Your task to perform on an android device: visit the assistant section in the google photos Image 0: 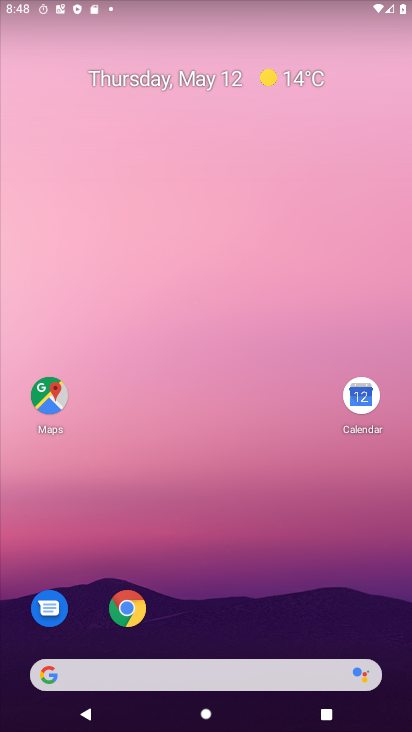
Step 0: drag from (253, 556) to (50, 1)
Your task to perform on an android device: visit the assistant section in the google photos Image 1: 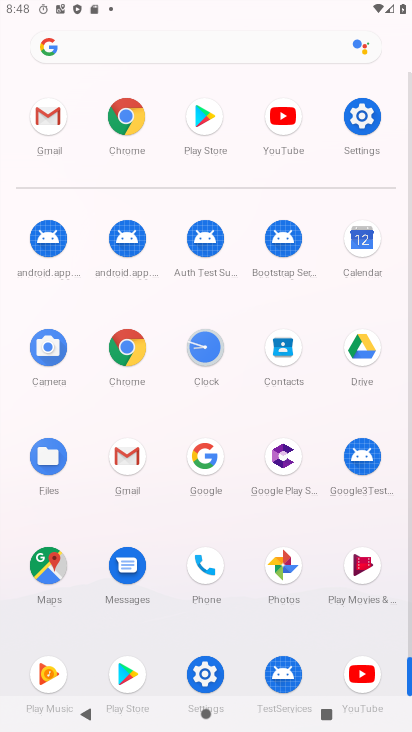
Step 1: click (291, 560)
Your task to perform on an android device: visit the assistant section in the google photos Image 2: 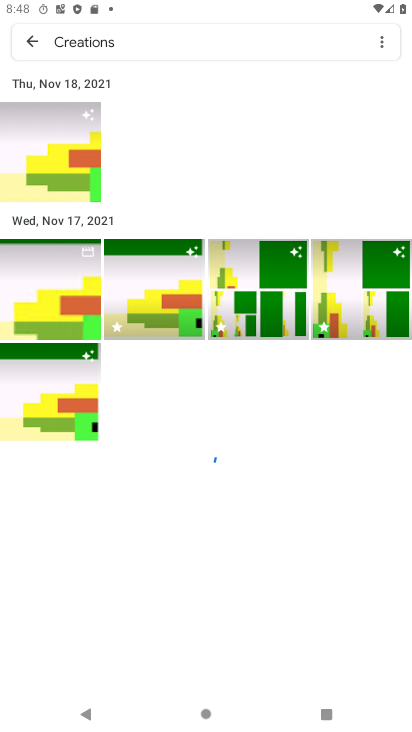
Step 2: click (375, 45)
Your task to perform on an android device: visit the assistant section in the google photos Image 3: 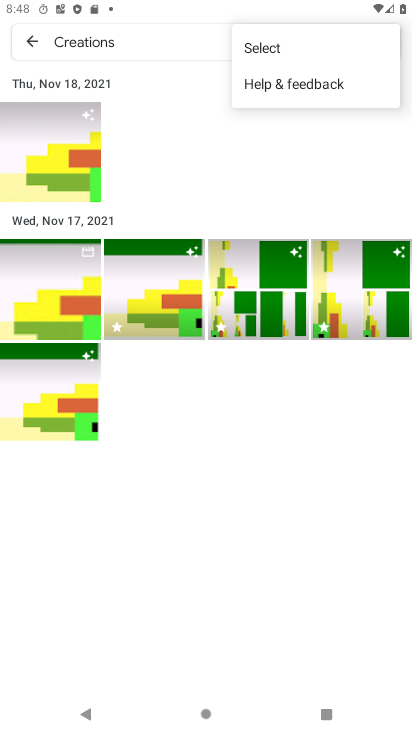
Step 3: click (31, 30)
Your task to perform on an android device: visit the assistant section in the google photos Image 4: 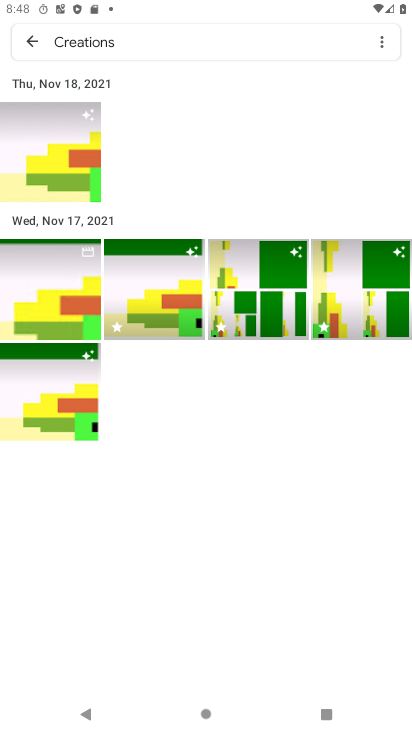
Step 4: click (28, 39)
Your task to perform on an android device: visit the assistant section in the google photos Image 5: 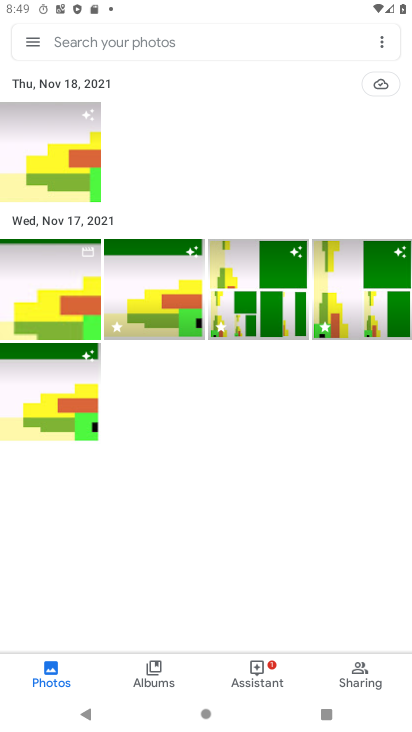
Step 5: click (252, 684)
Your task to perform on an android device: visit the assistant section in the google photos Image 6: 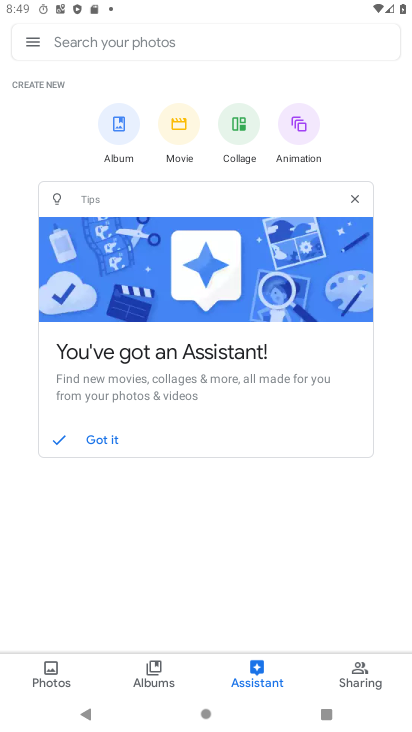
Step 6: task complete